Your task to perform on an android device: turn vacation reply on in the gmail app Image 0: 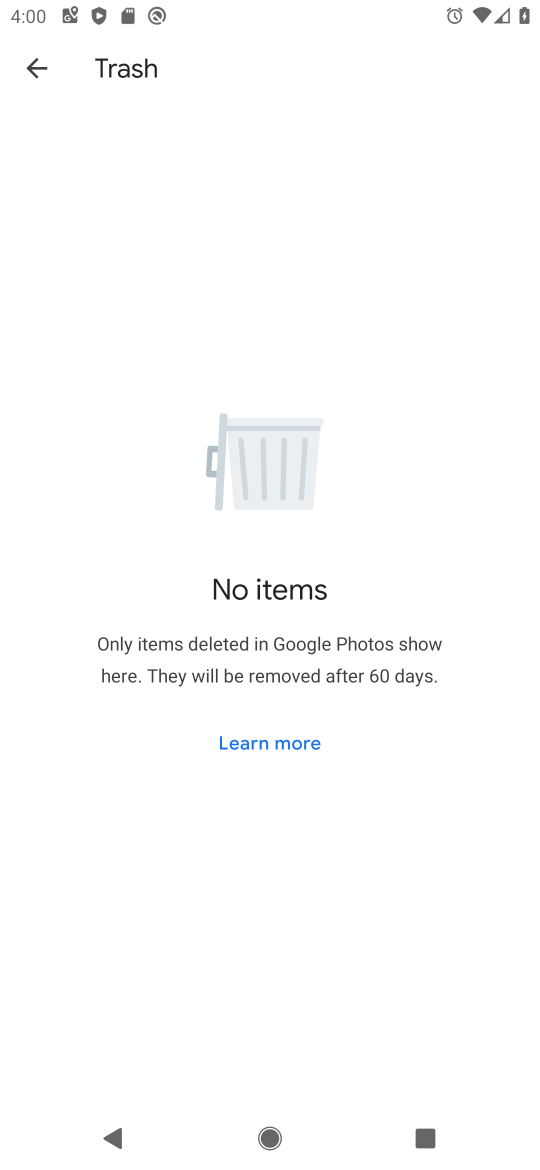
Step 0: press home button
Your task to perform on an android device: turn vacation reply on in the gmail app Image 1: 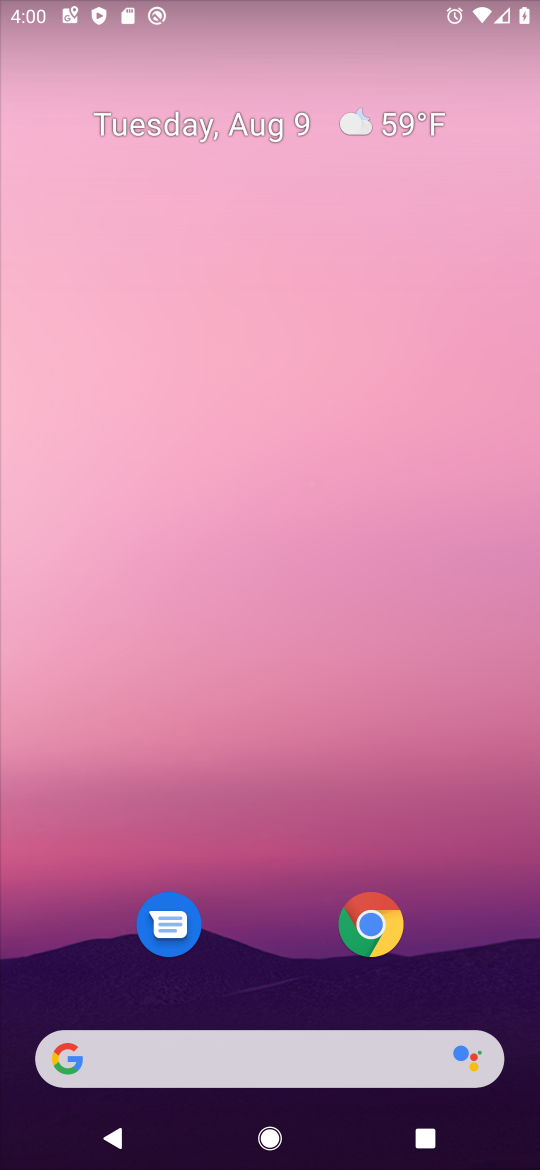
Step 1: drag from (247, 942) to (341, 0)
Your task to perform on an android device: turn vacation reply on in the gmail app Image 2: 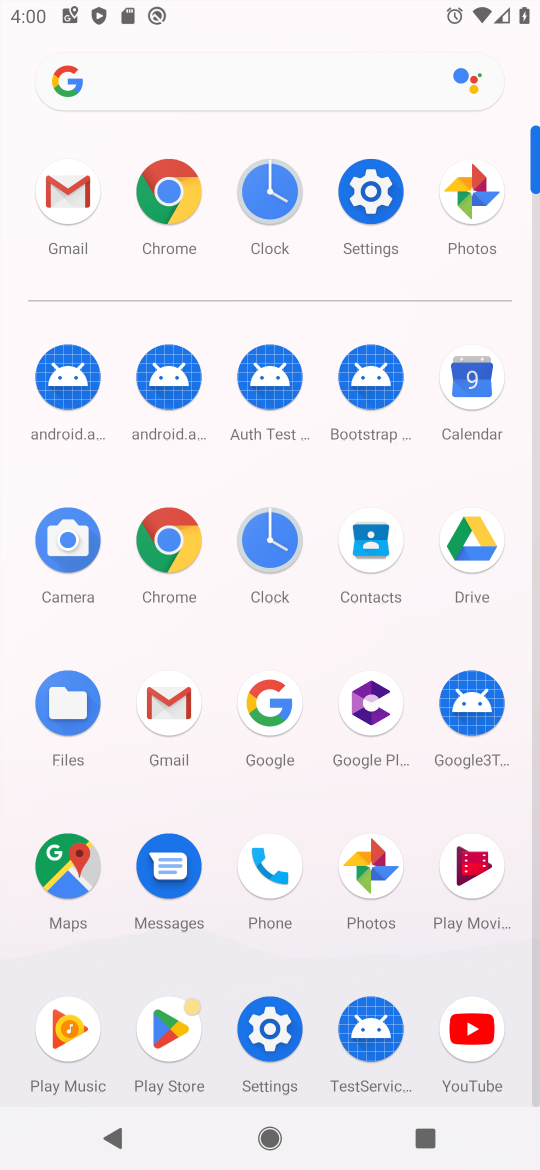
Step 2: click (70, 188)
Your task to perform on an android device: turn vacation reply on in the gmail app Image 3: 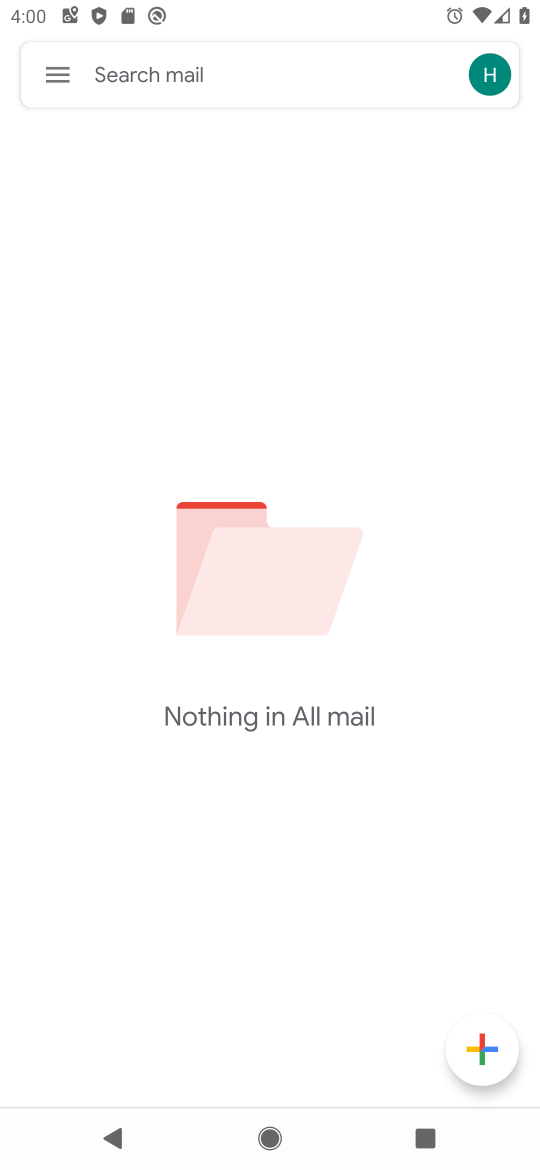
Step 3: click (63, 76)
Your task to perform on an android device: turn vacation reply on in the gmail app Image 4: 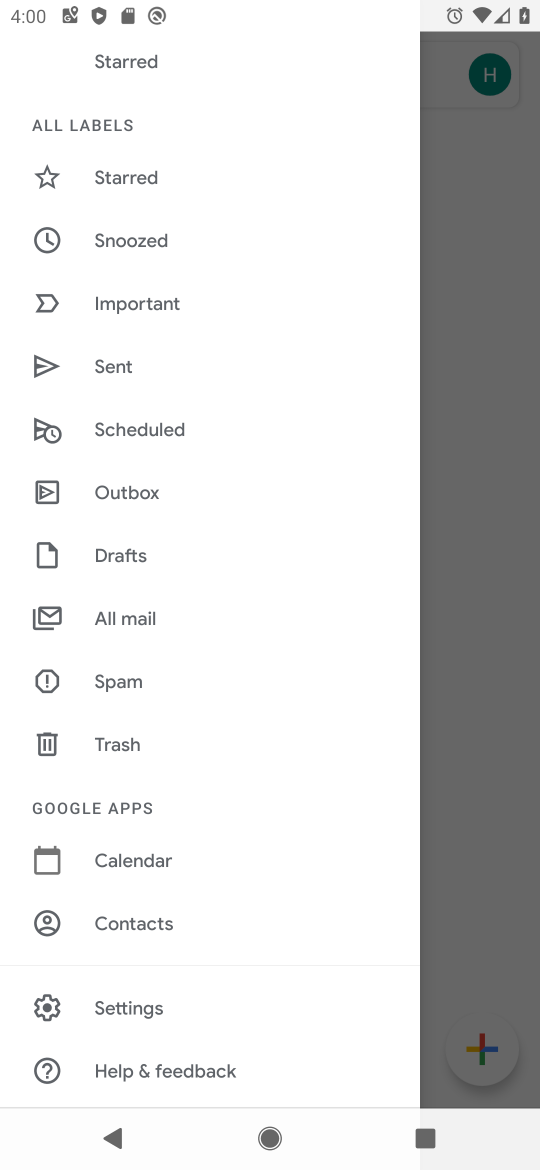
Step 4: click (104, 1003)
Your task to perform on an android device: turn vacation reply on in the gmail app Image 5: 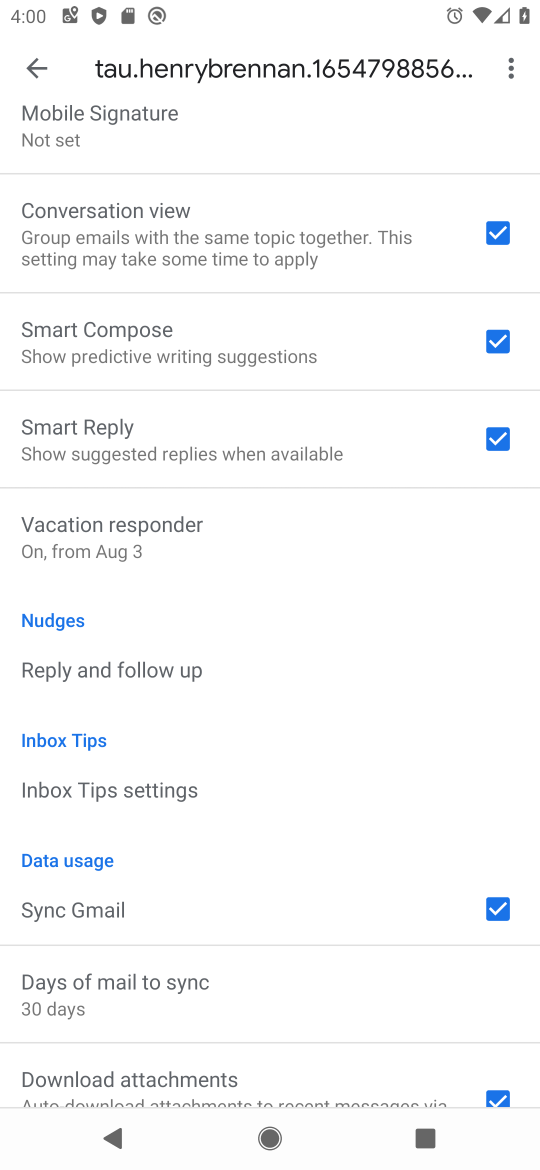
Step 5: click (244, 509)
Your task to perform on an android device: turn vacation reply on in the gmail app Image 6: 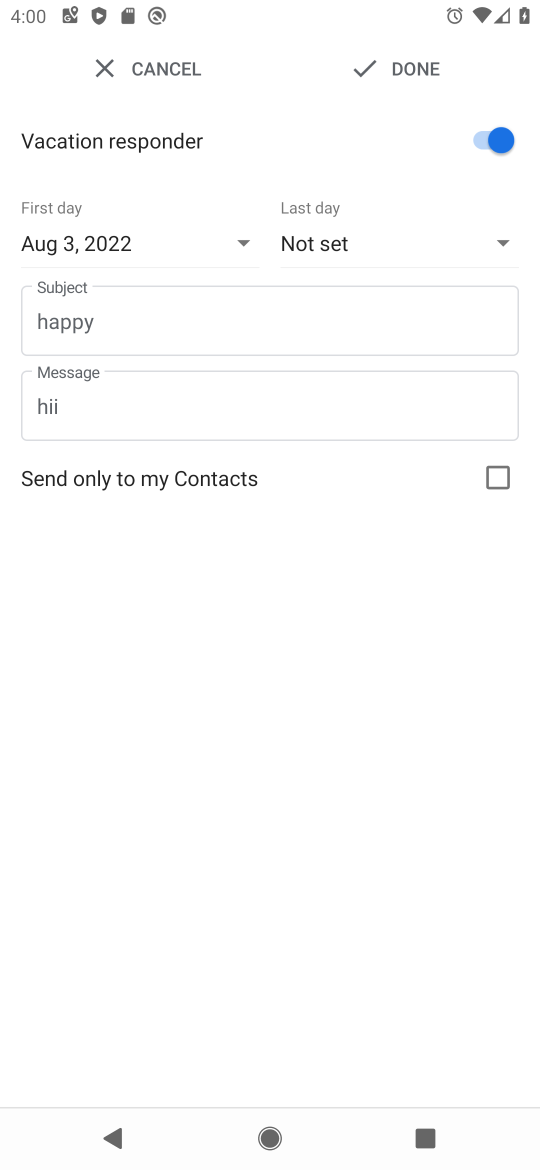
Step 6: task complete